Your task to perform on an android device: Turn off the flashlight Image 0: 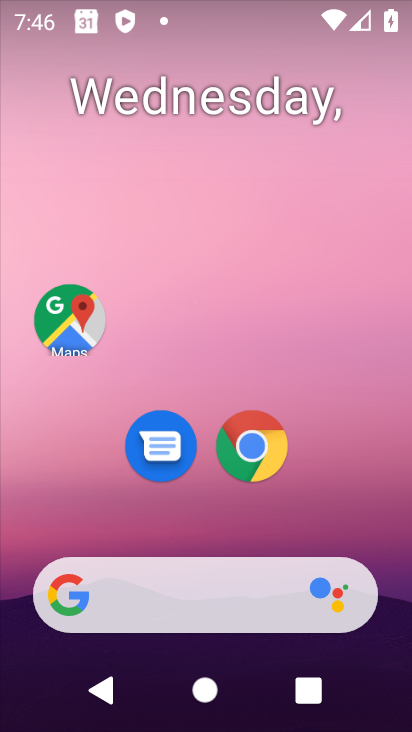
Step 0: drag from (356, 509) to (278, 24)
Your task to perform on an android device: Turn off the flashlight Image 1: 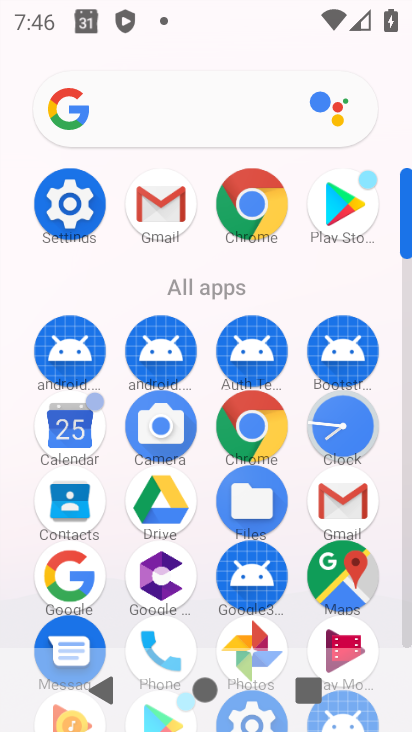
Step 1: click (78, 197)
Your task to perform on an android device: Turn off the flashlight Image 2: 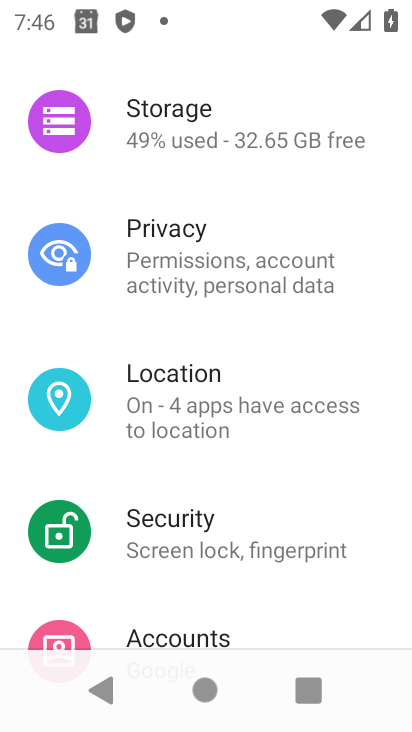
Step 2: task complete